Your task to perform on an android device: Is it going to rain this weekend? Image 0: 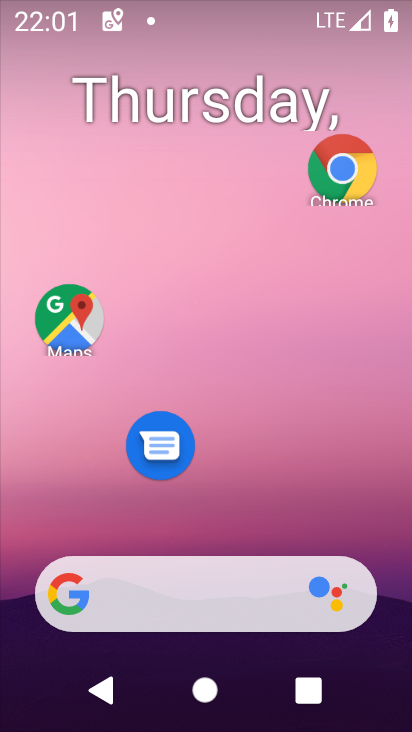
Step 0: click (269, 239)
Your task to perform on an android device: Is it going to rain this weekend? Image 1: 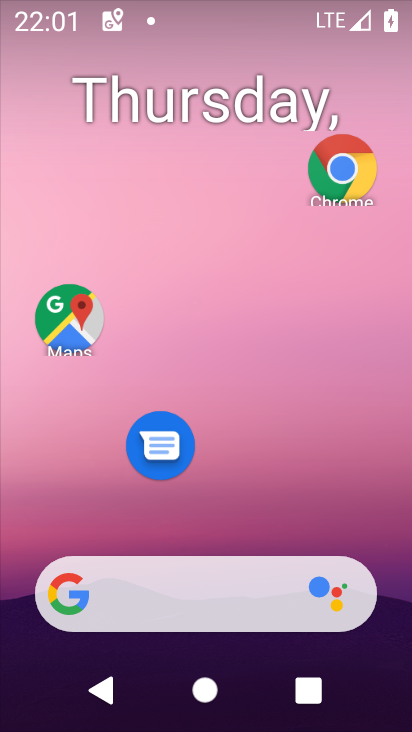
Step 1: drag from (217, 544) to (232, 112)
Your task to perform on an android device: Is it going to rain this weekend? Image 2: 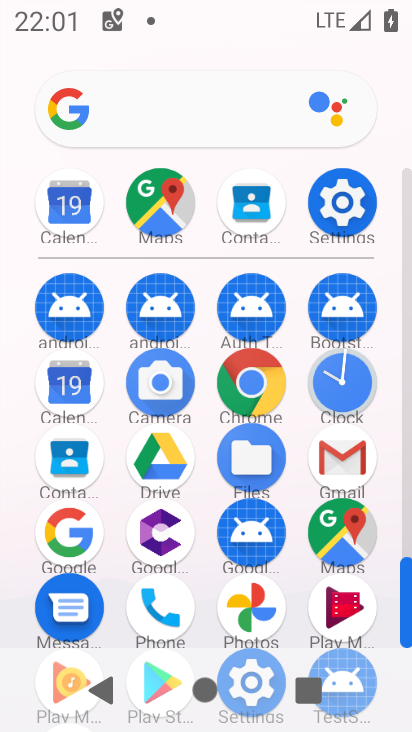
Step 2: click (198, 137)
Your task to perform on an android device: Is it going to rain this weekend? Image 3: 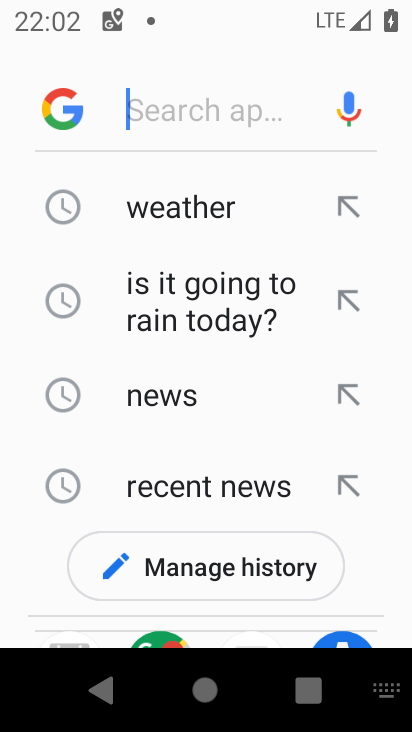
Step 3: type "Is it going to rain this weekend?"
Your task to perform on an android device: Is it going to rain this weekend? Image 4: 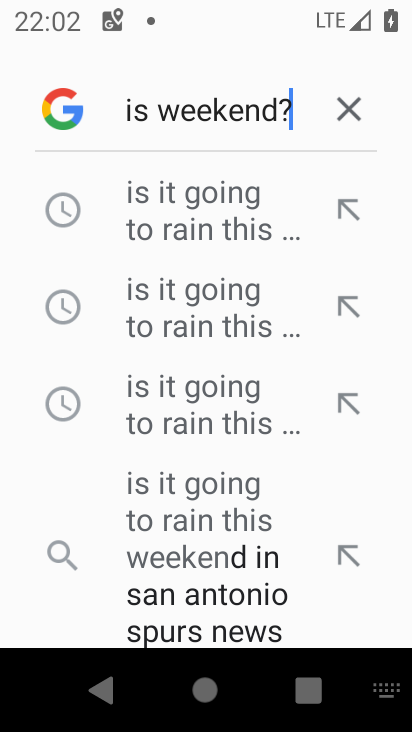
Step 4: type ""
Your task to perform on an android device: Is it going to rain this weekend? Image 5: 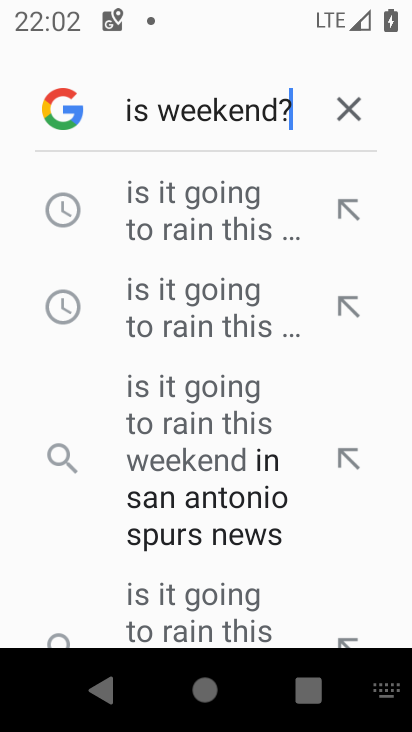
Step 5: click (186, 209)
Your task to perform on an android device: Is it going to rain this weekend? Image 6: 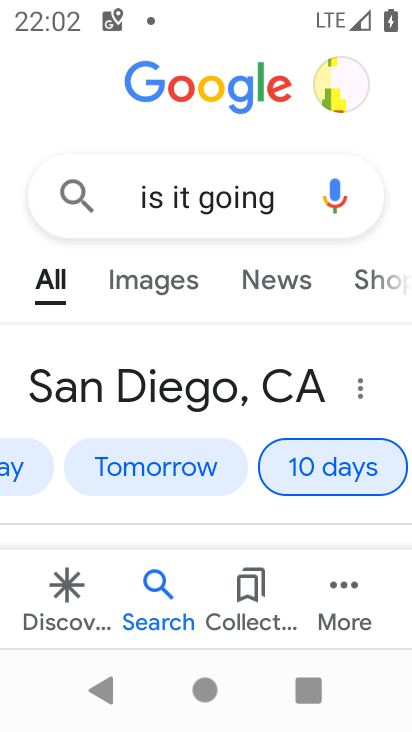
Step 6: task complete